Your task to perform on an android device: make emails show in primary in the gmail app Image 0: 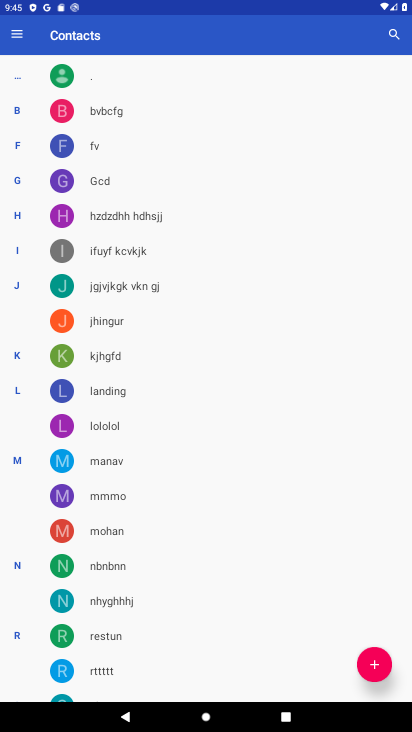
Step 0: press home button
Your task to perform on an android device: make emails show in primary in the gmail app Image 1: 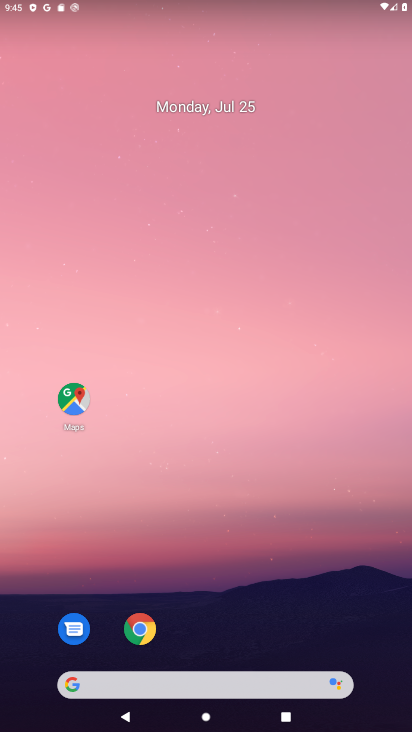
Step 1: drag from (201, 614) to (244, 132)
Your task to perform on an android device: make emails show in primary in the gmail app Image 2: 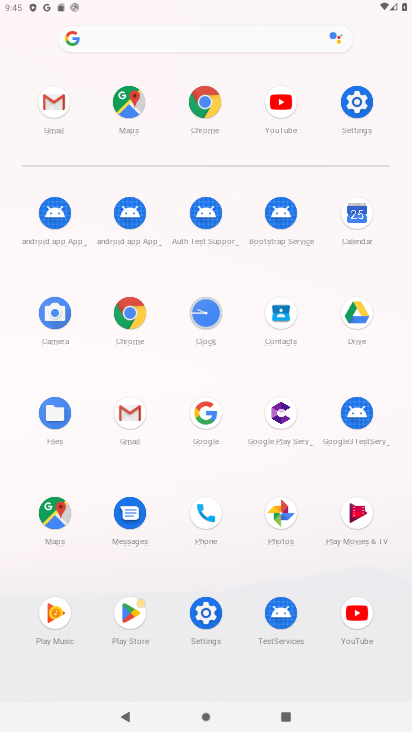
Step 2: click (60, 103)
Your task to perform on an android device: make emails show in primary in the gmail app Image 3: 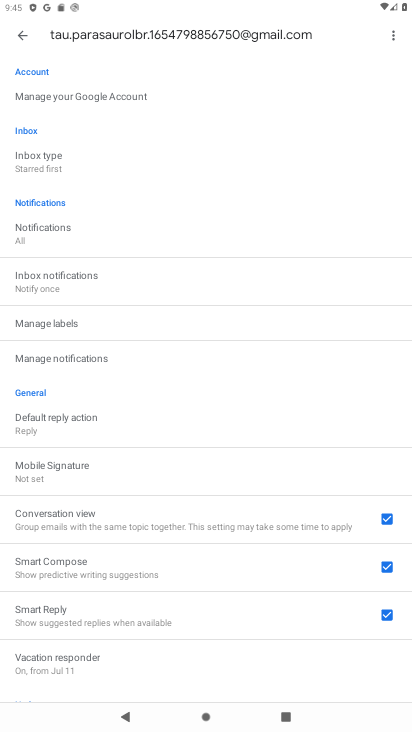
Step 3: click (27, 45)
Your task to perform on an android device: make emails show in primary in the gmail app Image 4: 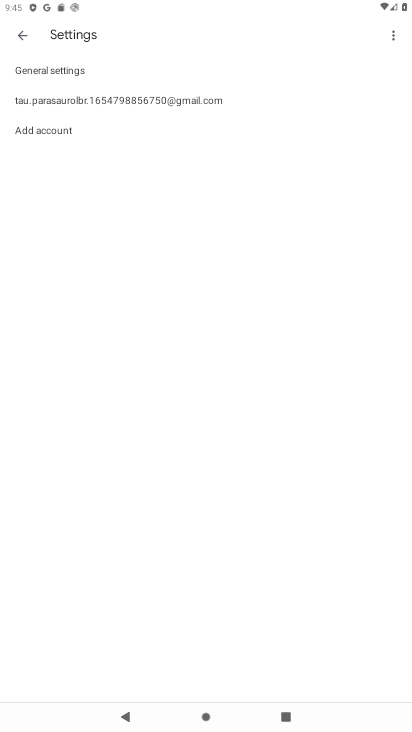
Step 4: click (27, 45)
Your task to perform on an android device: make emails show in primary in the gmail app Image 5: 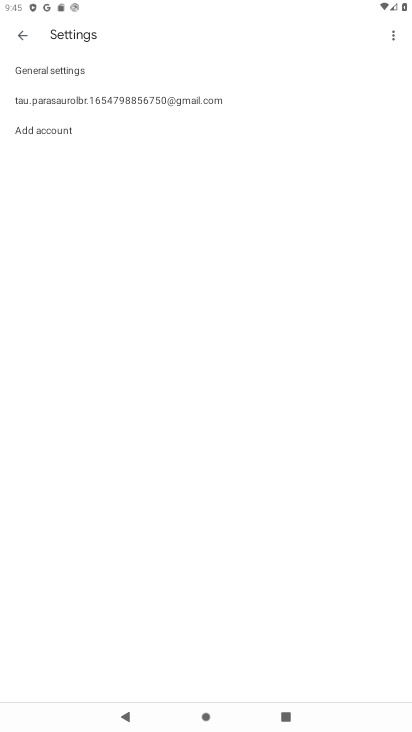
Step 5: click (27, 45)
Your task to perform on an android device: make emails show in primary in the gmail app Image 6: 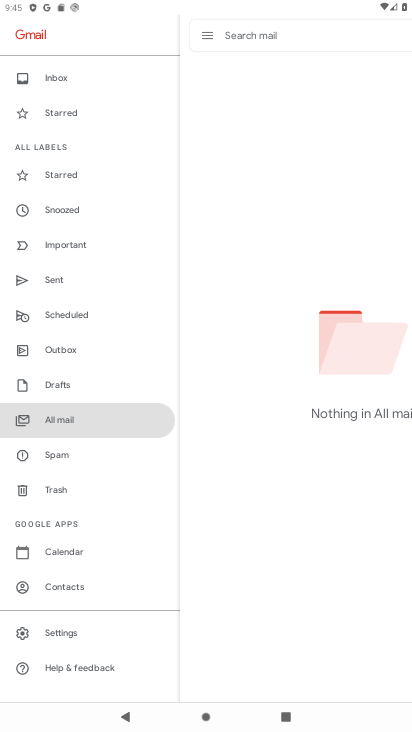
Step 6: task complete